Your task to perform on an android device: turn on wifi Image 0: 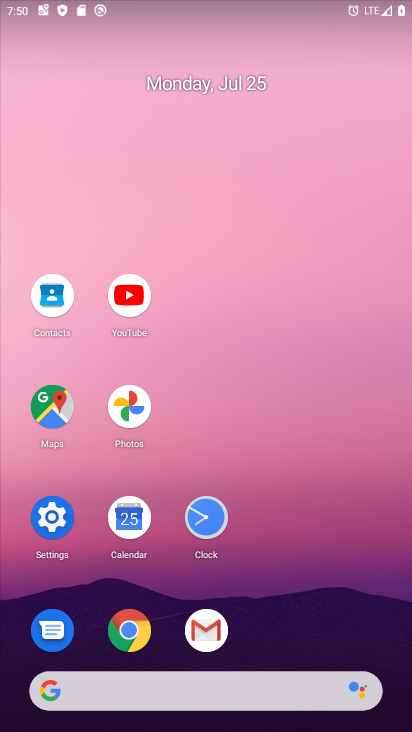
Step 0: click (50, 524)
Your task to perform on an android device: turn on wifi Image 1: 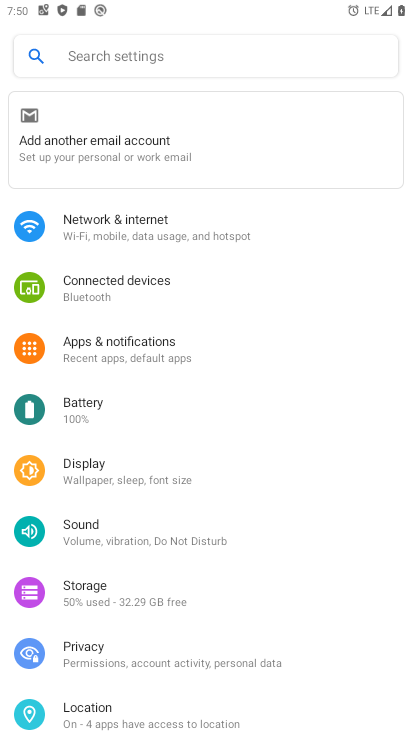
Step 1: click (140, 224)
Your task to perform on an android device: turn on wifi Image 2: 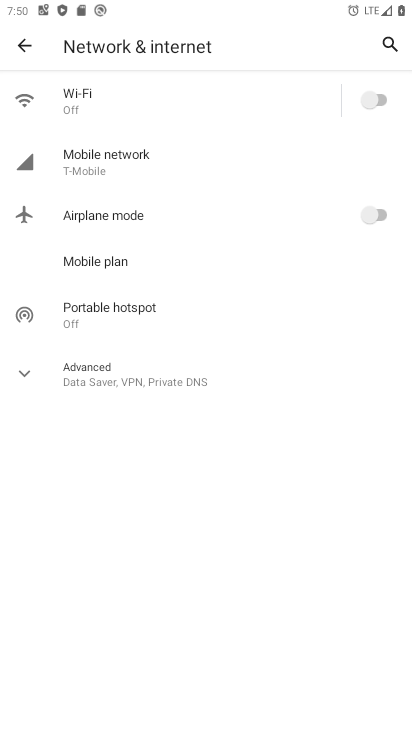
Step 2: click (372, 97)
Your task to perform on an android device: turn on wifi Image 3: 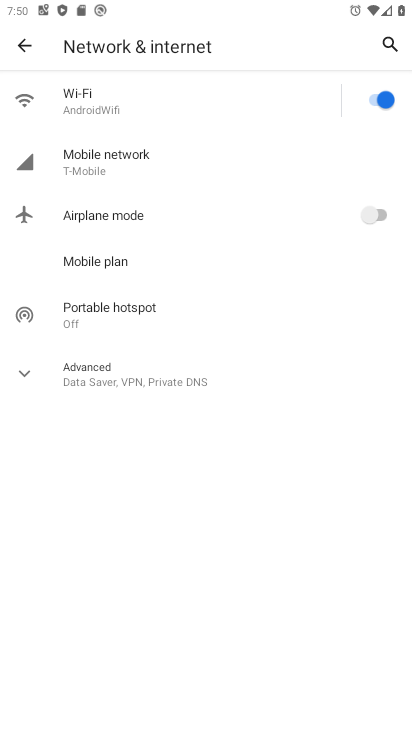
Step 3: task complete